Your task to perform on an android device: Clear all items from cart on newegg. Add "lenovo thinkpad" to the cart on newegg, then select checkout. Image 0: 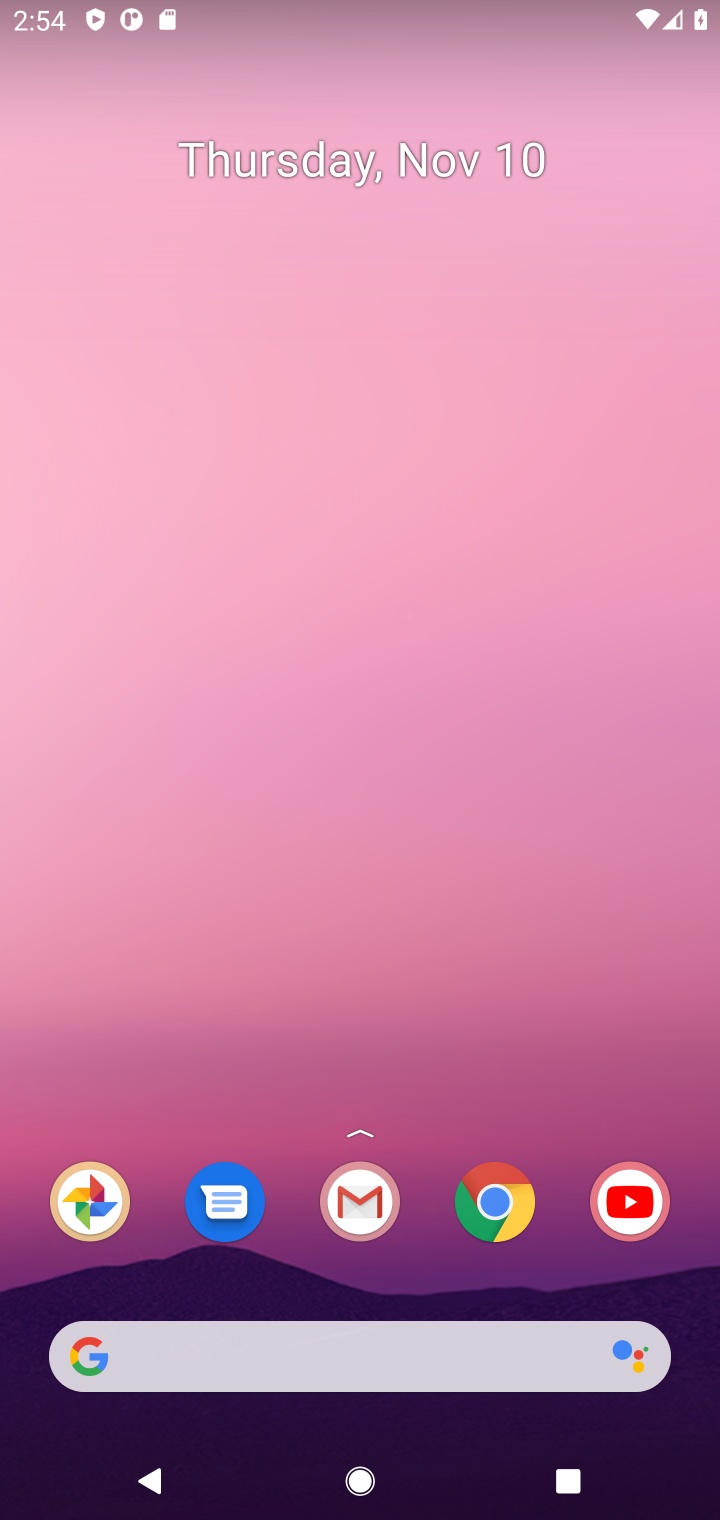
Step 0: click (498, 1199)
Your task to perform on an android device: Clear all items from cart on newegg. Add "lenovo thinkpad" to the cart on newegg, then select checkout. Image 1: 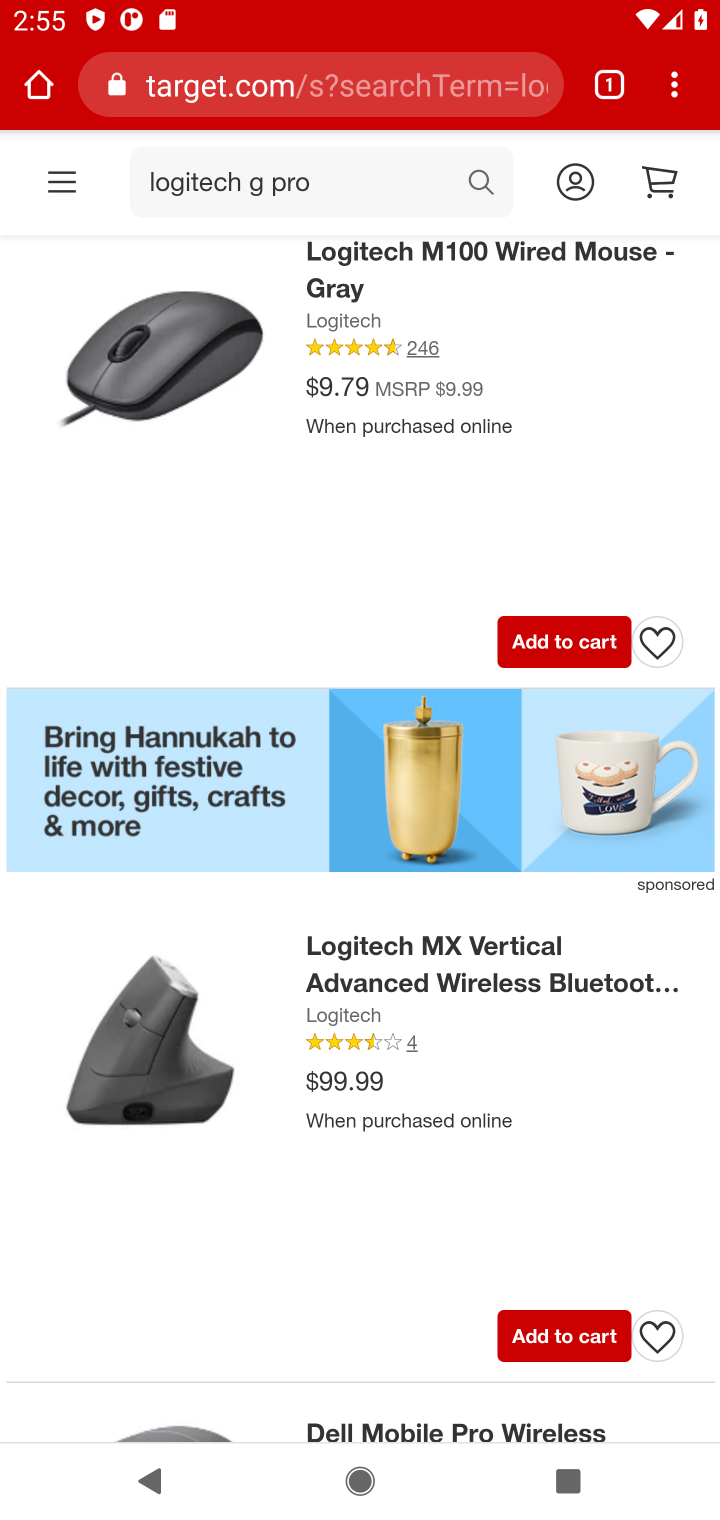
Step 1: click (321, 71)
Your task to perform on an android device: Clear all items from cart on newegg. Add "lenovo thinkpad" to the cart on newegg, then select checkout. Image 2: 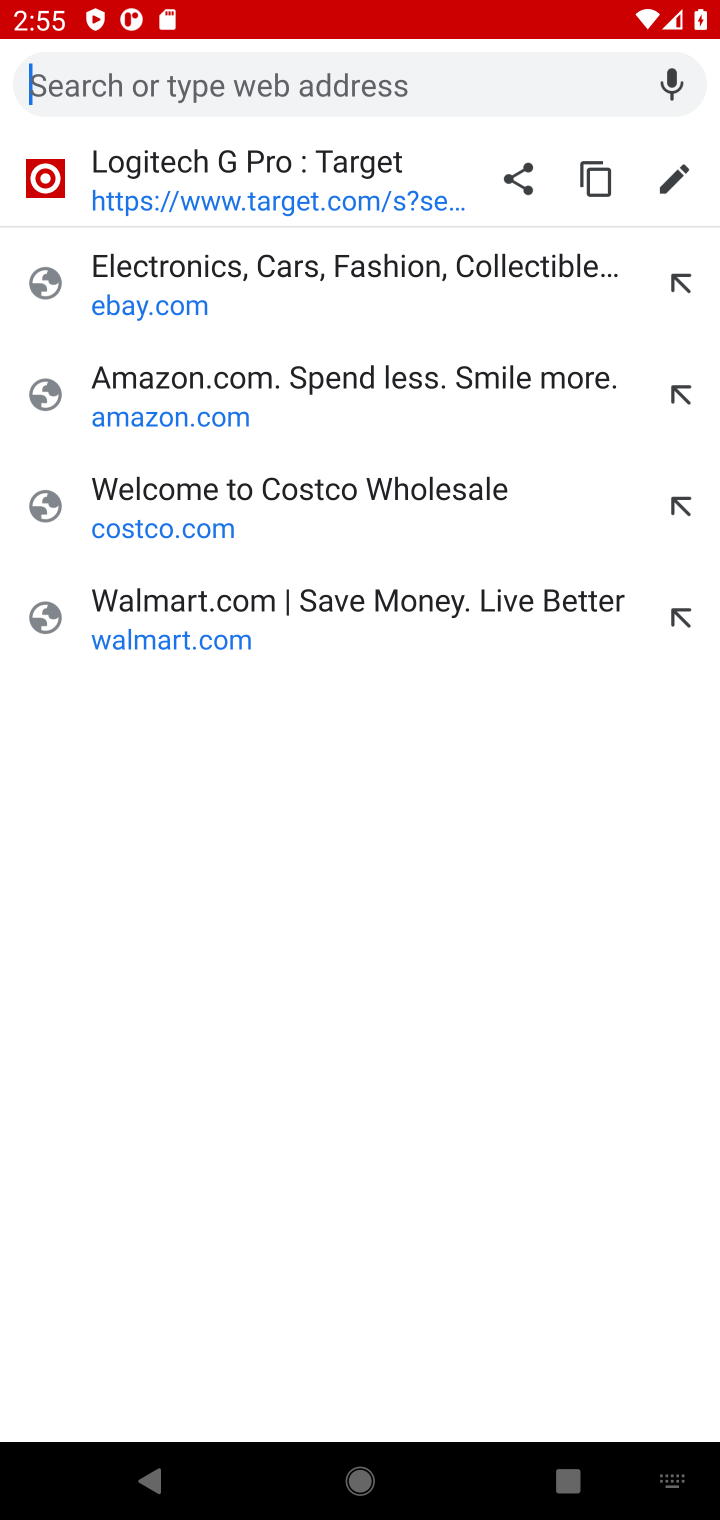
Step 2: type "newegg"
Your task to perform on an android device: Clear all items from cart on newegg. Add "lenovo thinkpad" to the cart on newegg, then select checkout. Image 3: 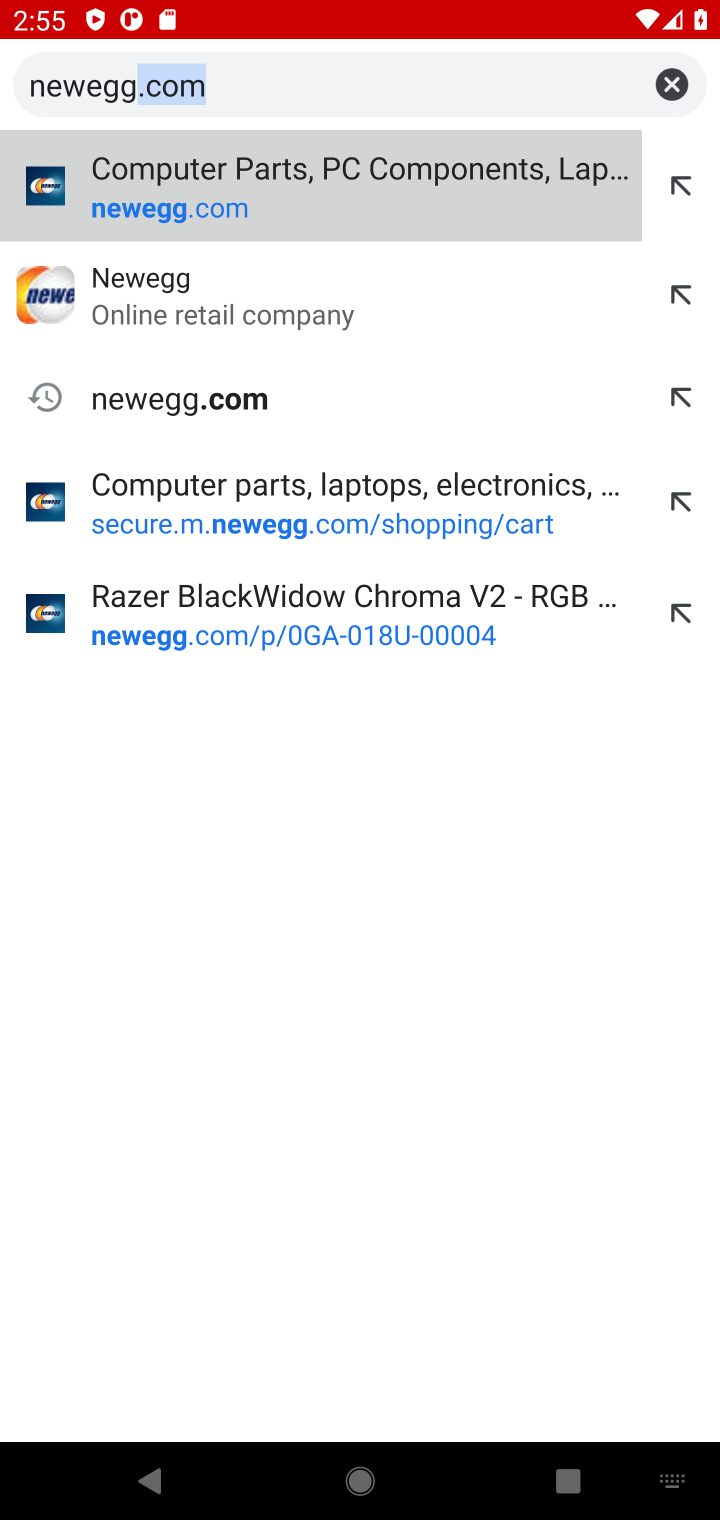
Step 3: click (369, 83)
Your task to perform on an android device: Clear all items from cart on newegg. Add "lenovo thinkpad" to the cart on newegg, then select checkout. Image 4: 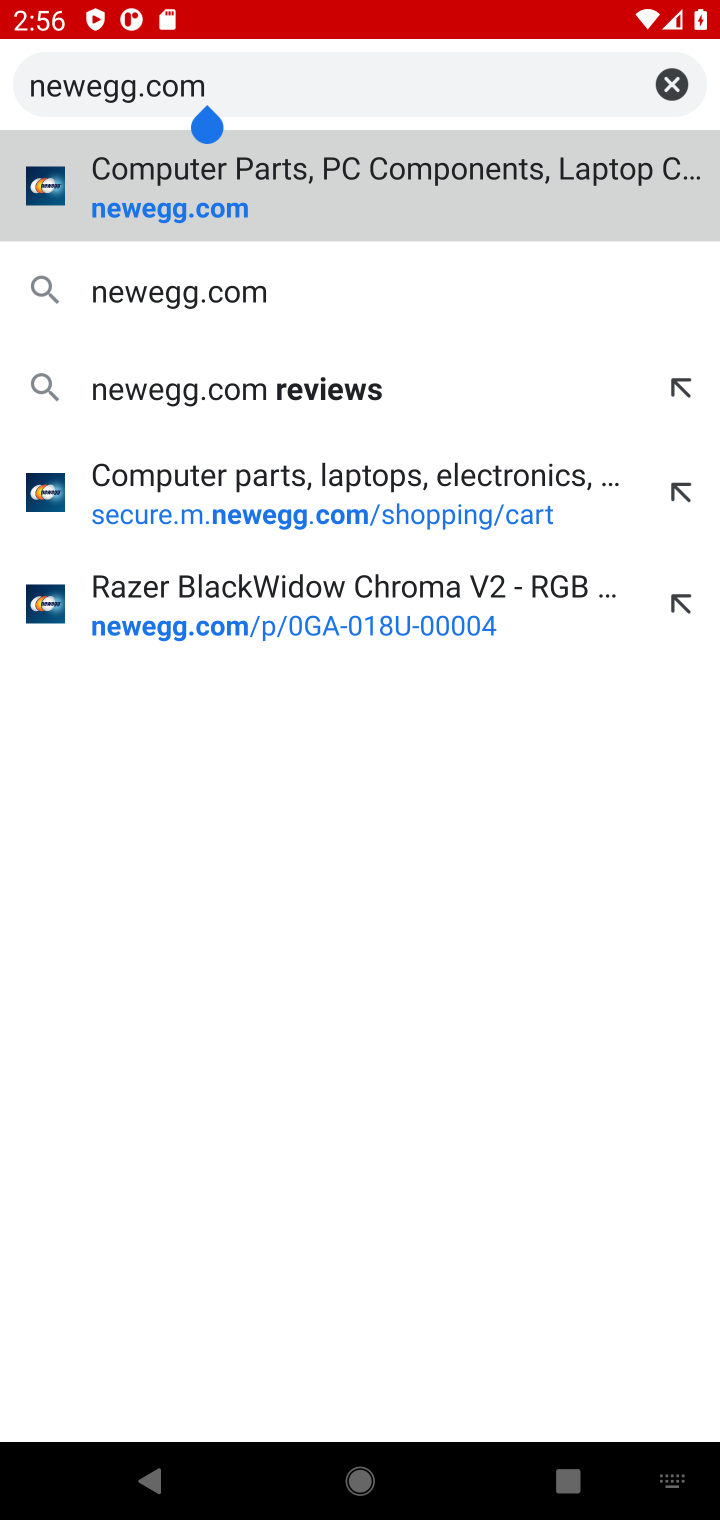
Step 4: click (204, 295)
Your task to perform on an android device: Clear all items from cart on newegg. Add "lenovo thinkpad" to the cart on newegg, then select checkout. Image 5: 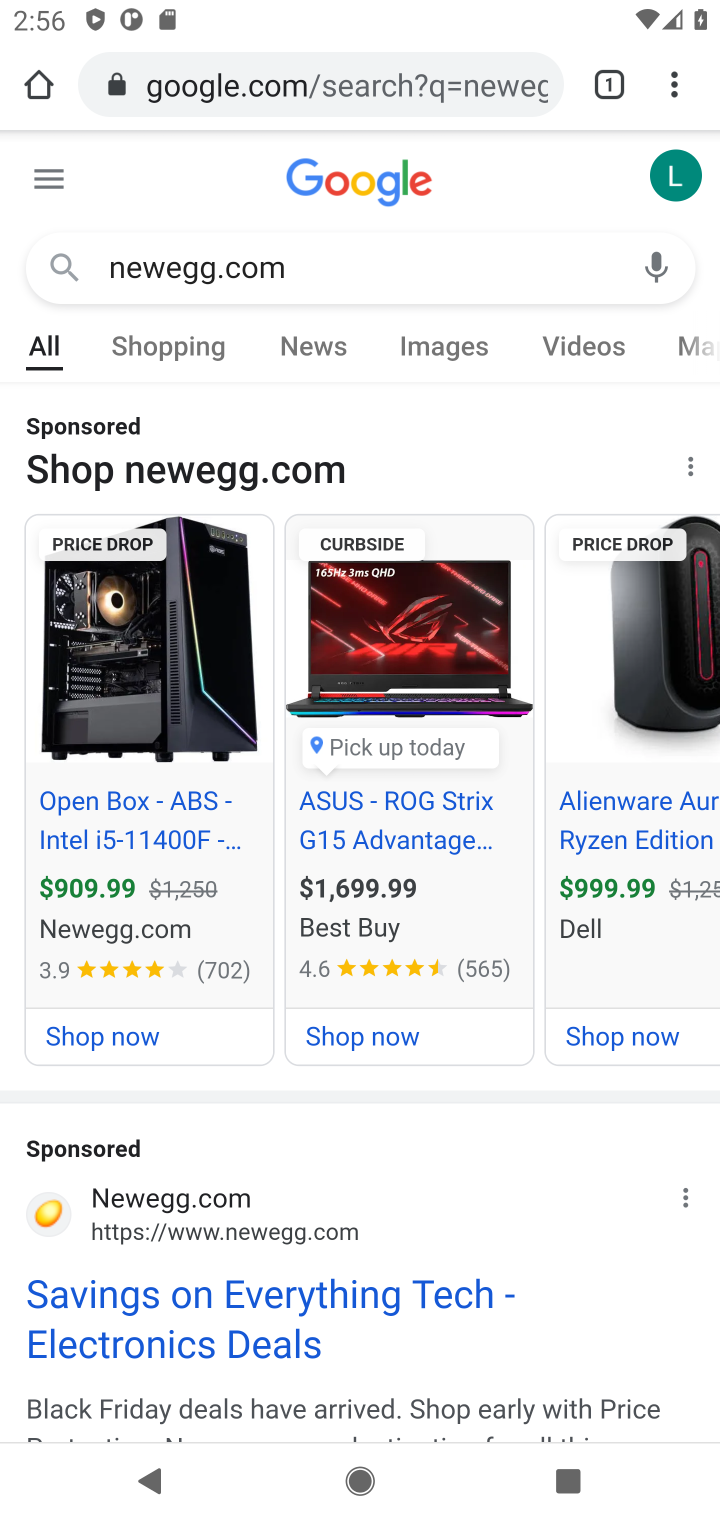
Step 5: click (231, 1223)
Your task to perform on an android device: Clear all items from cart on newegg. Add "lenovo thinkpad" to the cart on newegg, then select checkout. Image 6: 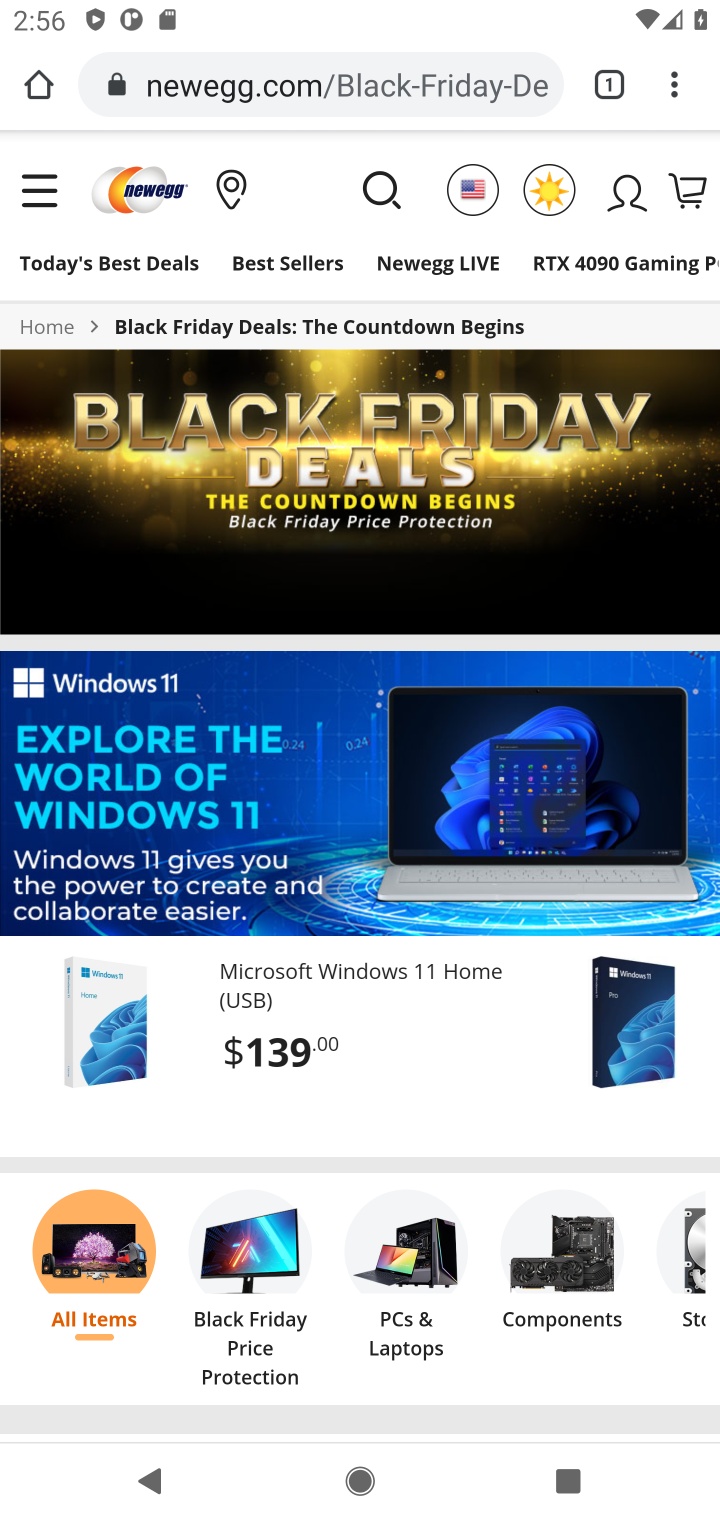
Step 6: click (382, 178)
Your task to perform on an android device: Clear all items from cart on newegg. Add "lenovo thinkpad" to the cart on newegg, then select checkout. Image 7: 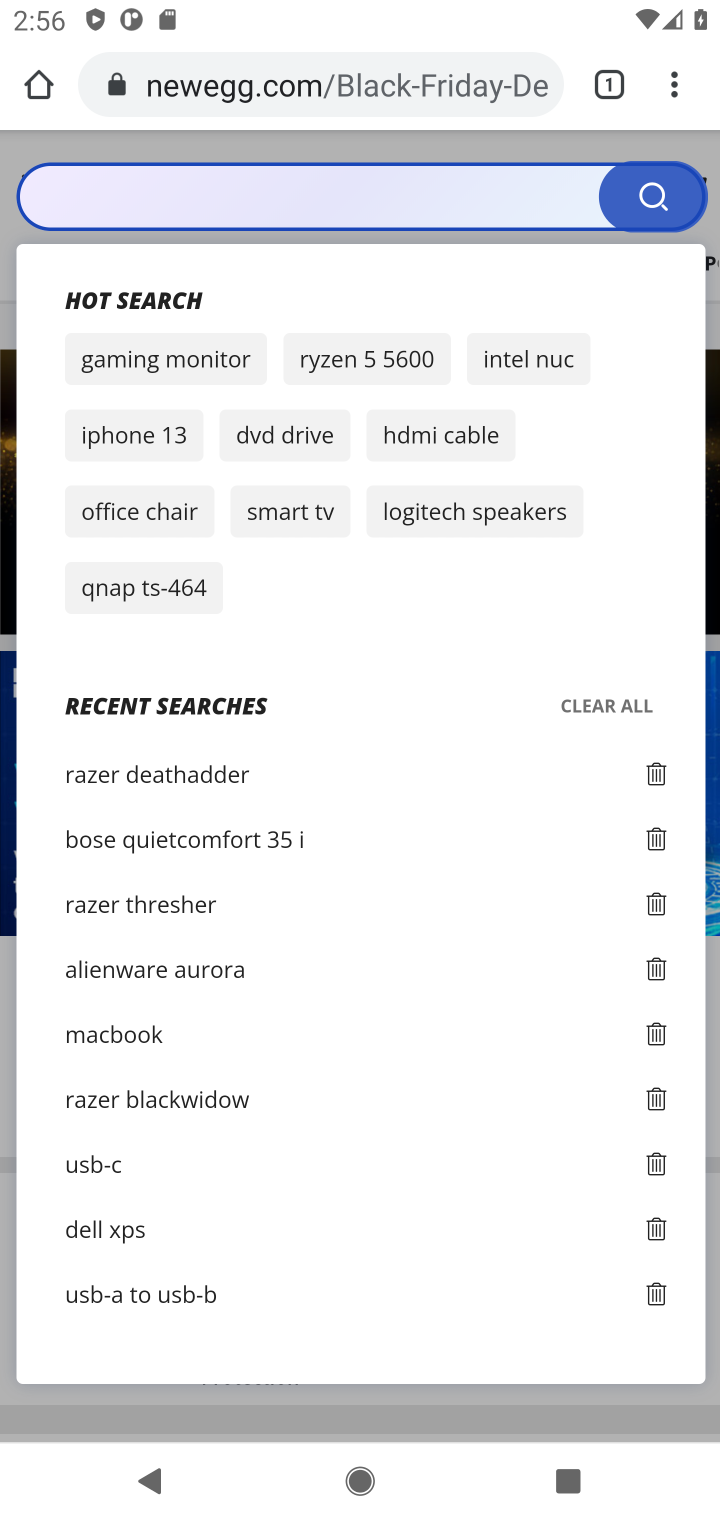
Step 7: press enter
Your task to perform on an android device: Clear all items from cart on newegg. Add "lenovo thinkpad" to the cart on newegg, then select checkout. Image 8: 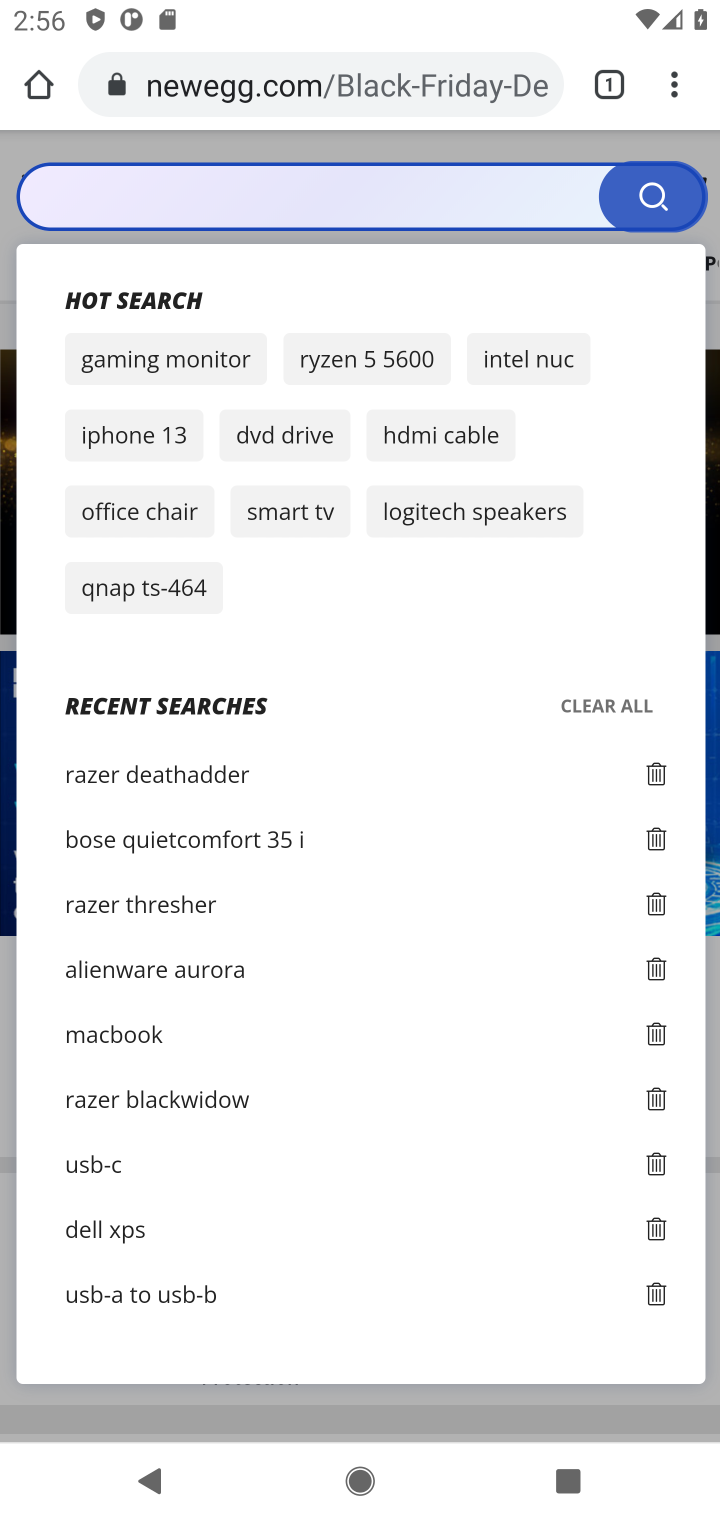
Step 8: type "lenovo thinkpad"
Your task to perform on an android device: Clear all items from cart on newegg. Add "lenovo thinkpad" to the cart on newegg, then select checkout. Image 9: 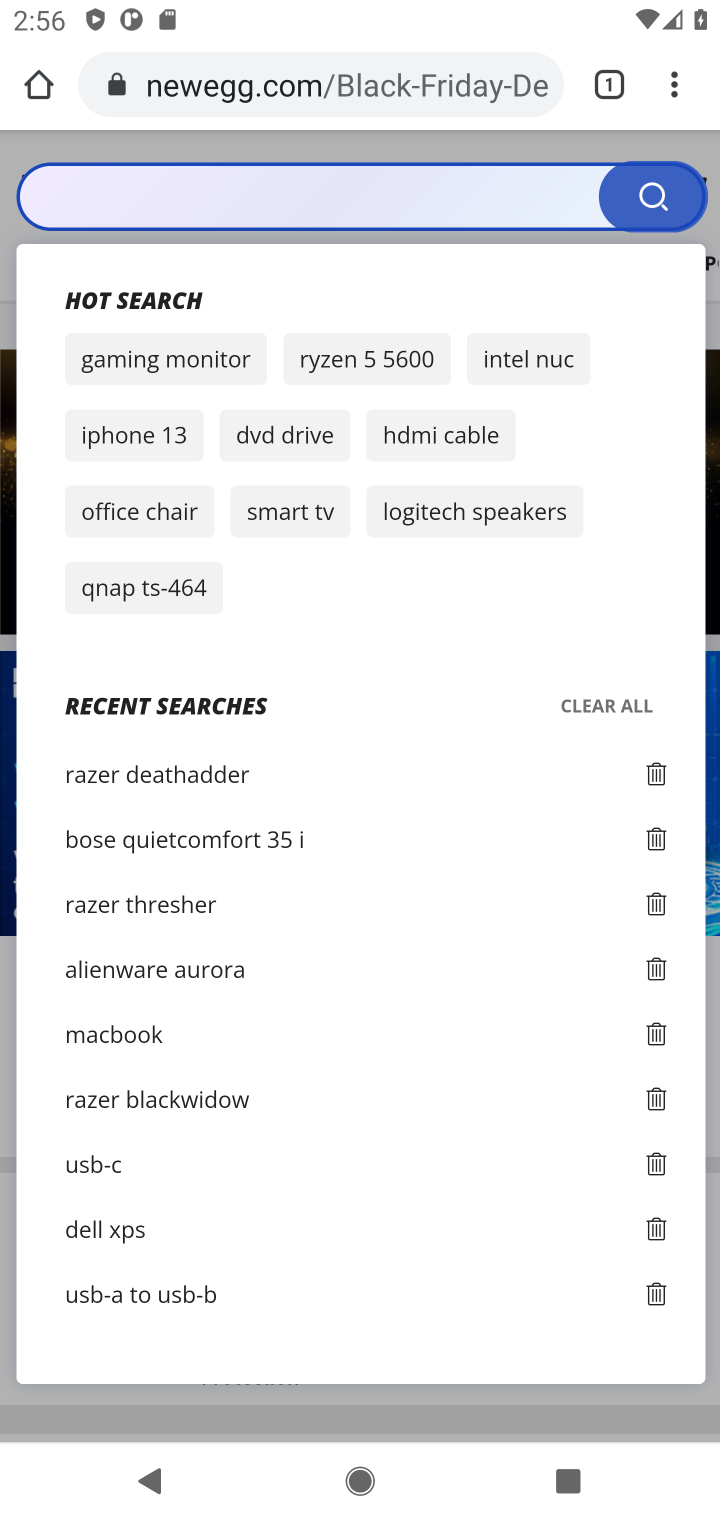
Step 9: click (280, 188)
Your task to perform on an android device: Clear all items from cart on newegg. Add "lenovo thinkpad" to the cart on newegg, then select checkout. Image 10: 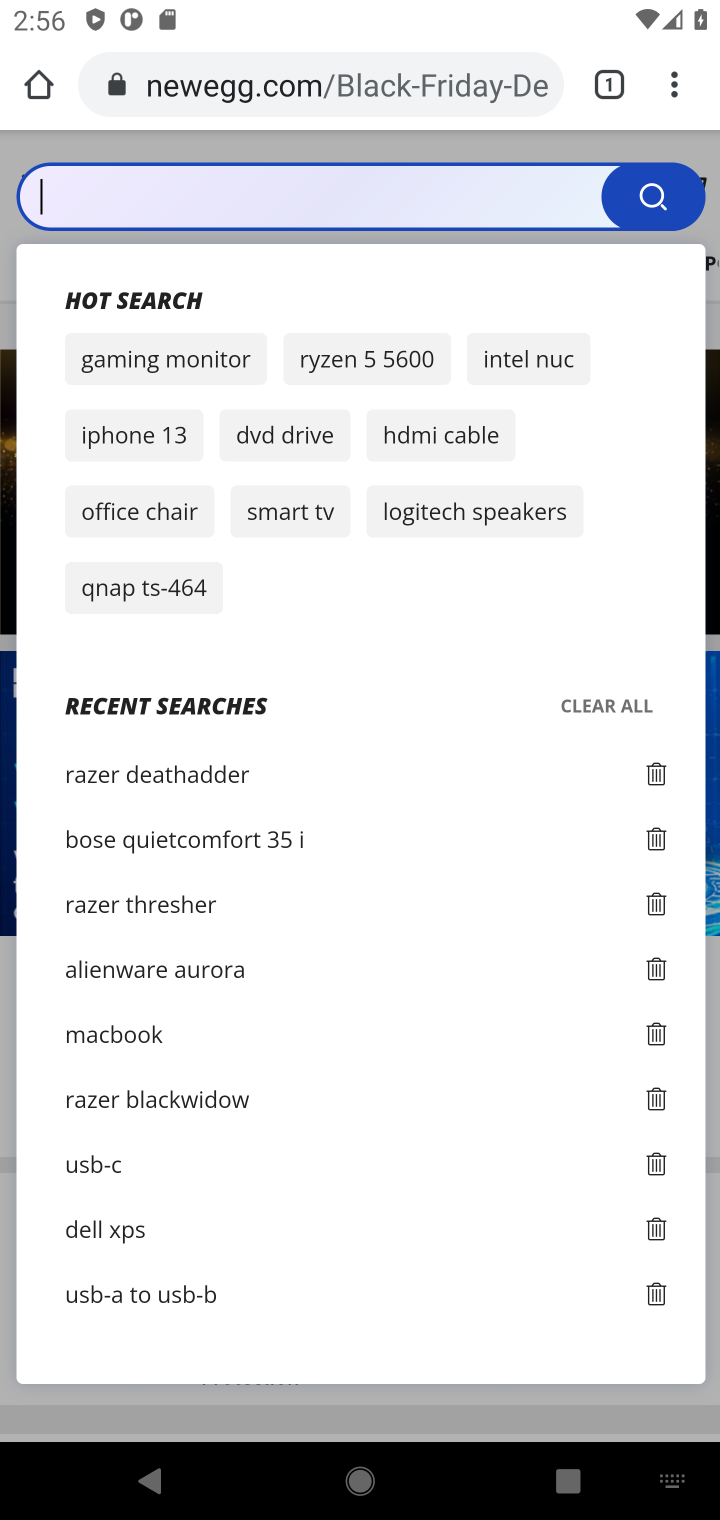
Step 10: press enter
Your task to perform on an android device: Clear all items from cart on newegg. Add "lenovo thinkpad" to the cart on newegg, then select checkout. Image 11: 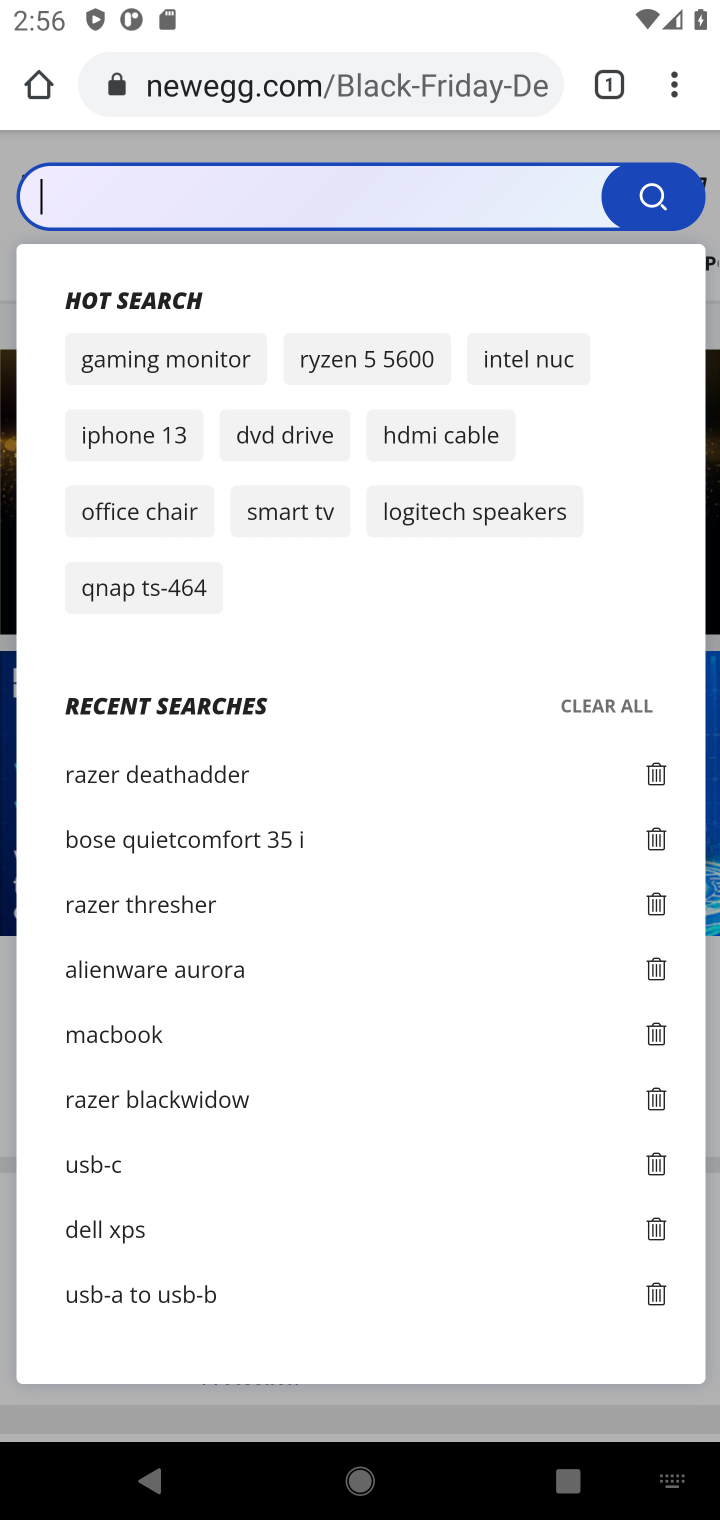
Step 11: type "lenovo thinkpad"
Your task to perform on an android device: Clear all items from cart on newegg. Add "lenovo thinkpad" to the cart on newegg, then select checkout. Image 12: 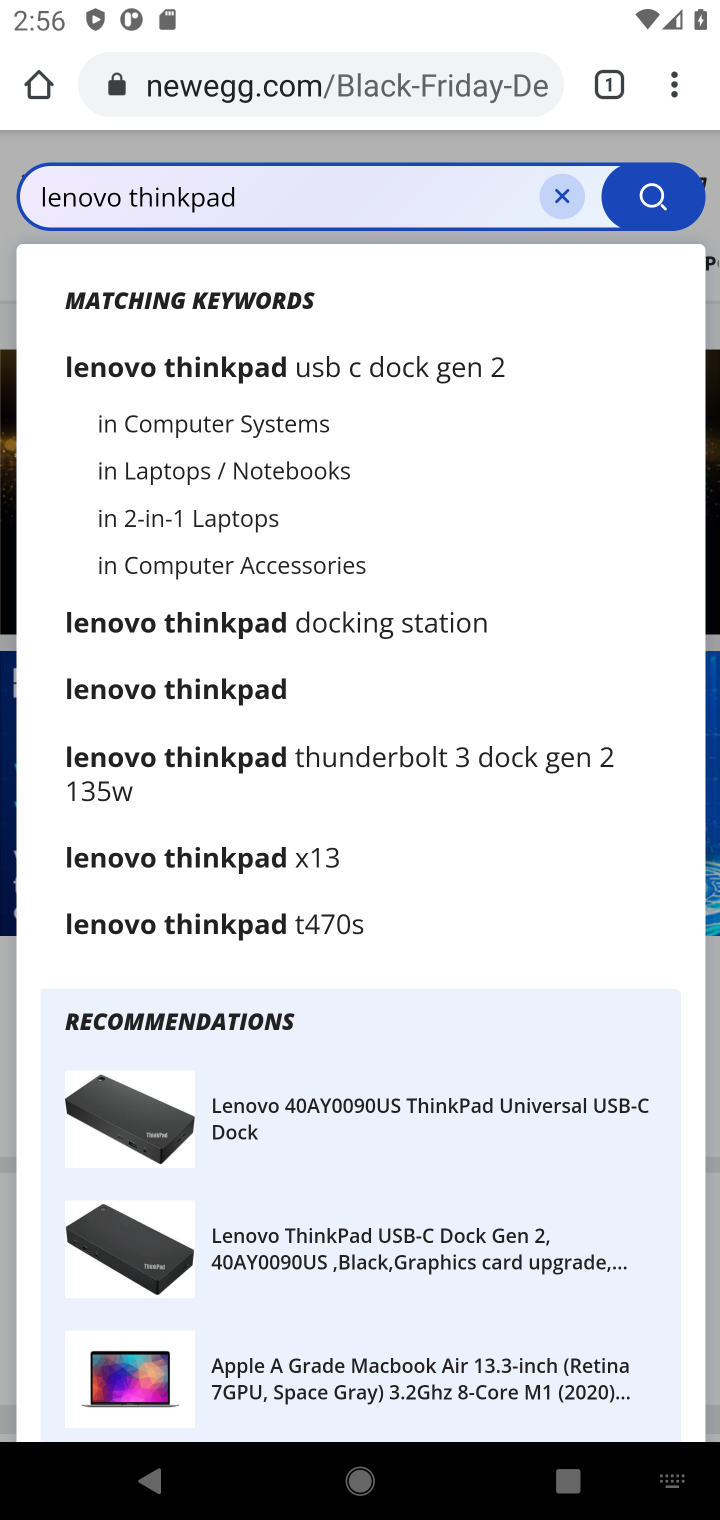
Step 12: click (232, 687)
Your task to perform on an android device: Clear all items from cart on newegg. Add "lenovo thinkpad" to the cart on newegg, then select checkout. Image 13: 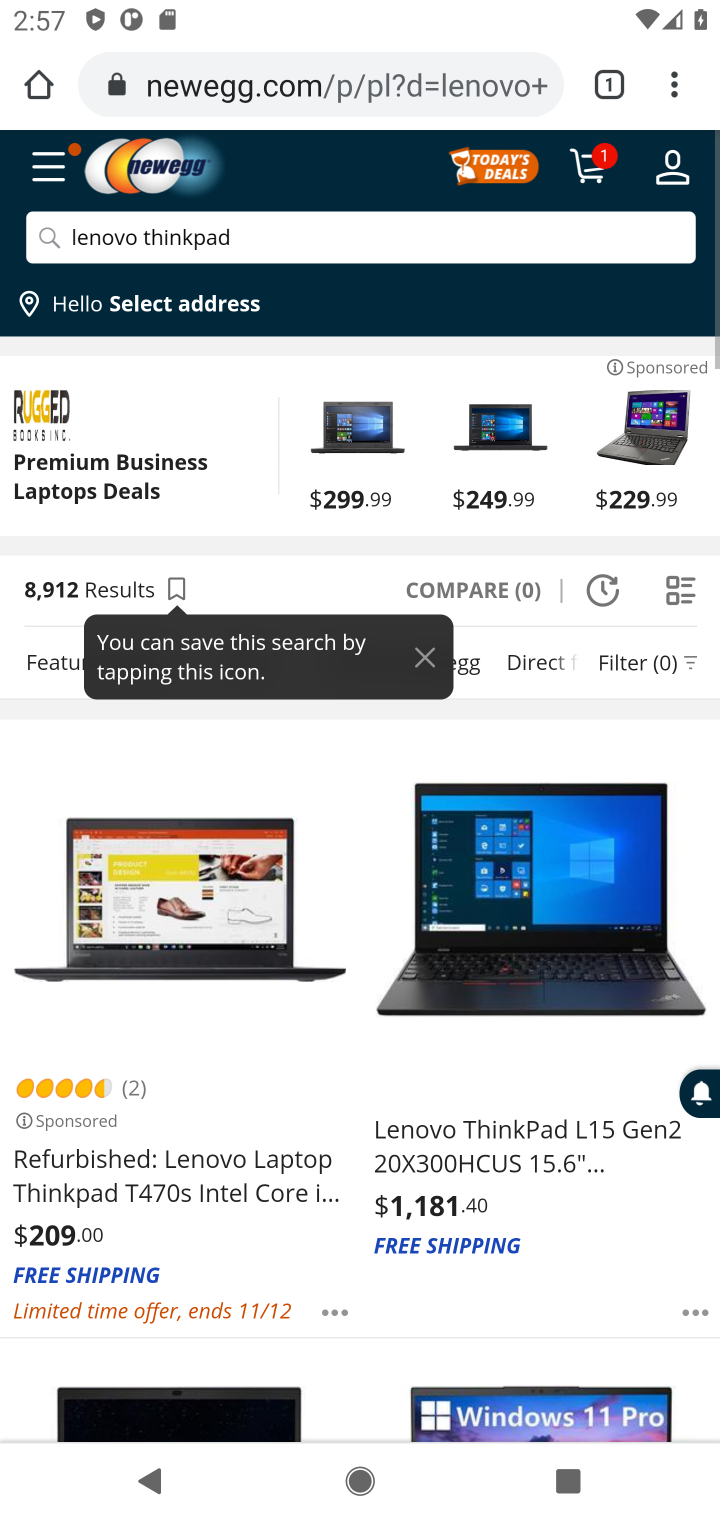
Step 13: drag from (361, 771) to (500, 1193)
Your task to perform on an android device: Clear all items from cart on newegg. Add "lenovo thinkpad" to the cart on newegg, then select checkout. Image 14: 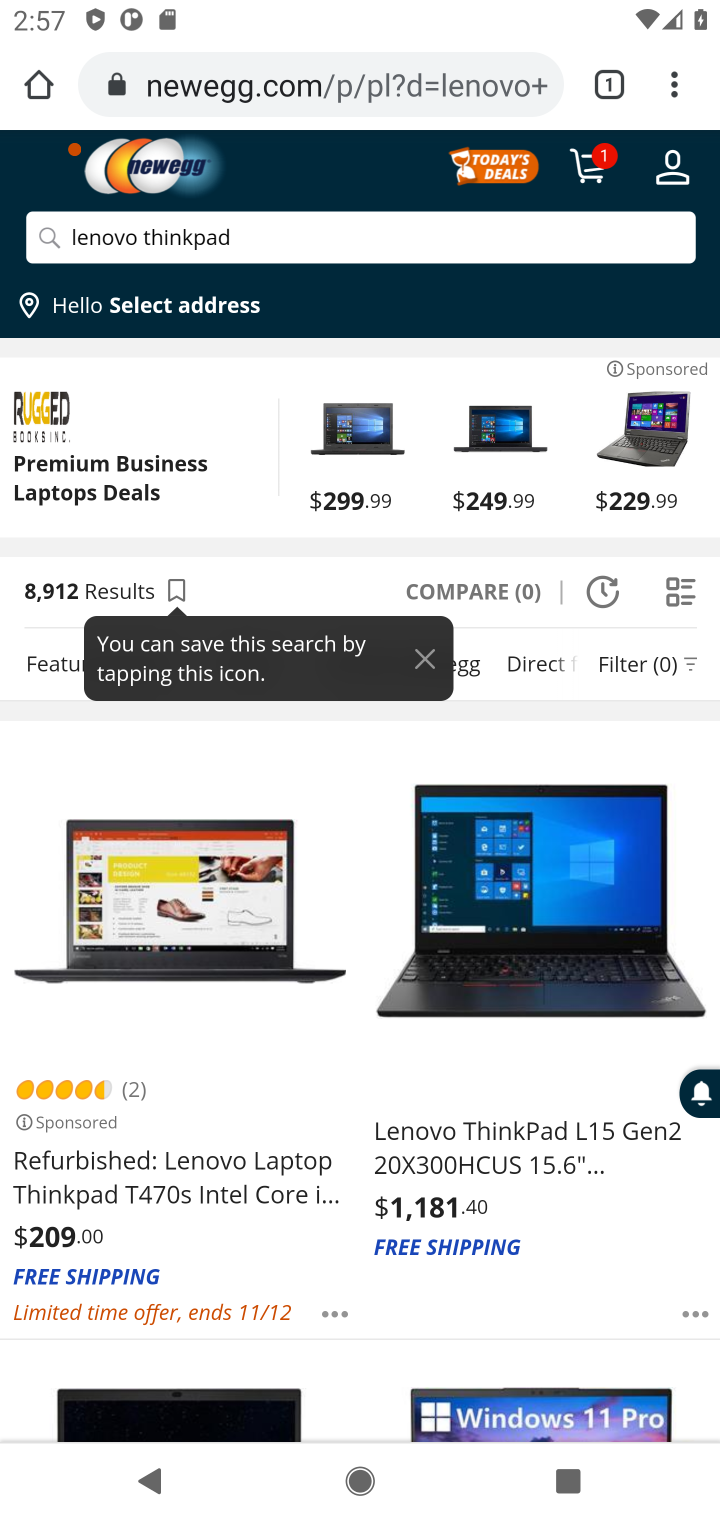
Step 14: click (542, 858)
Your task to perform on an android device: Clear all items from cart on newegg. Add "lenovo thinkpad" to the cart on newegg, then select checkout. Image 15: 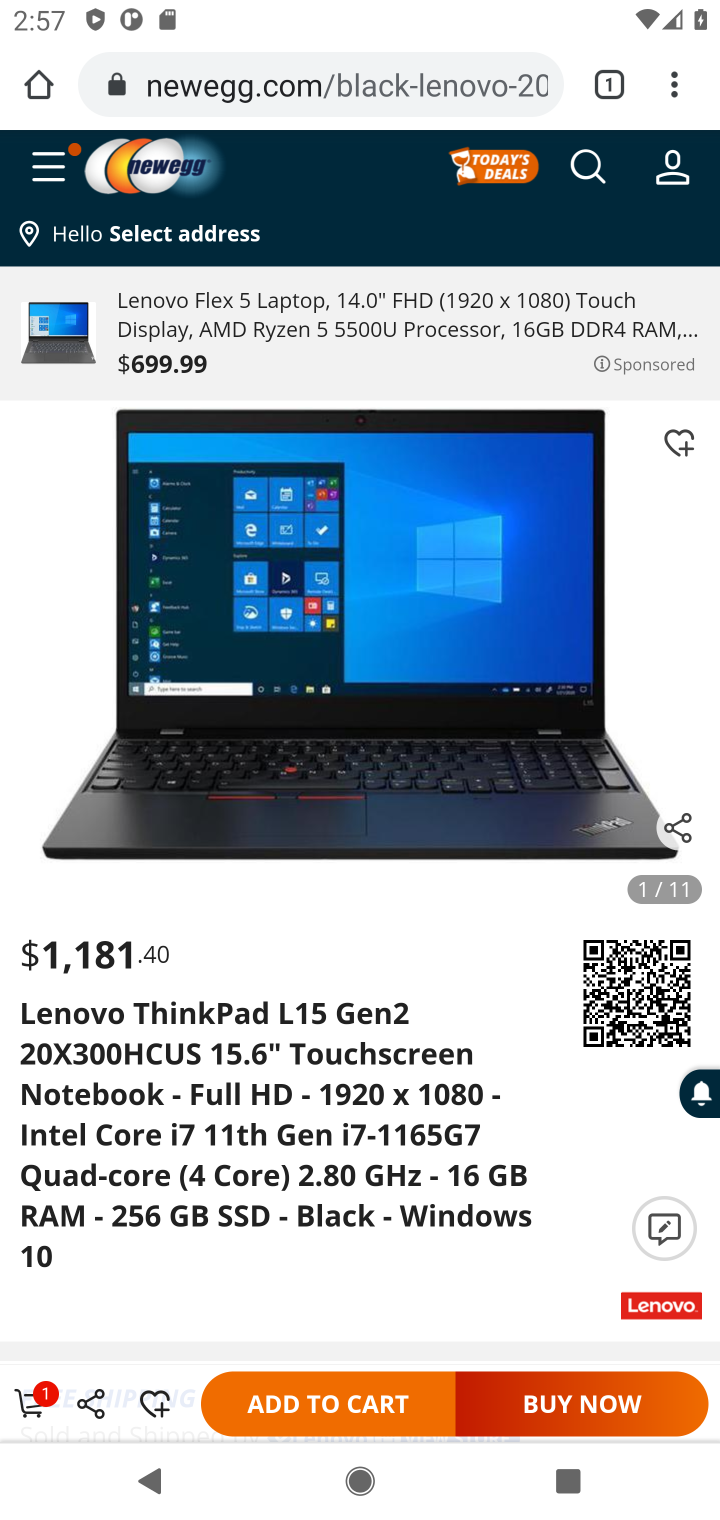
Step 15: click (344, 1398)
Your task to perform on an android device: Clear all items from cart on newegg. Add "lenovo thinkpad" to the cart on newegg, then select checkout. Image 16: 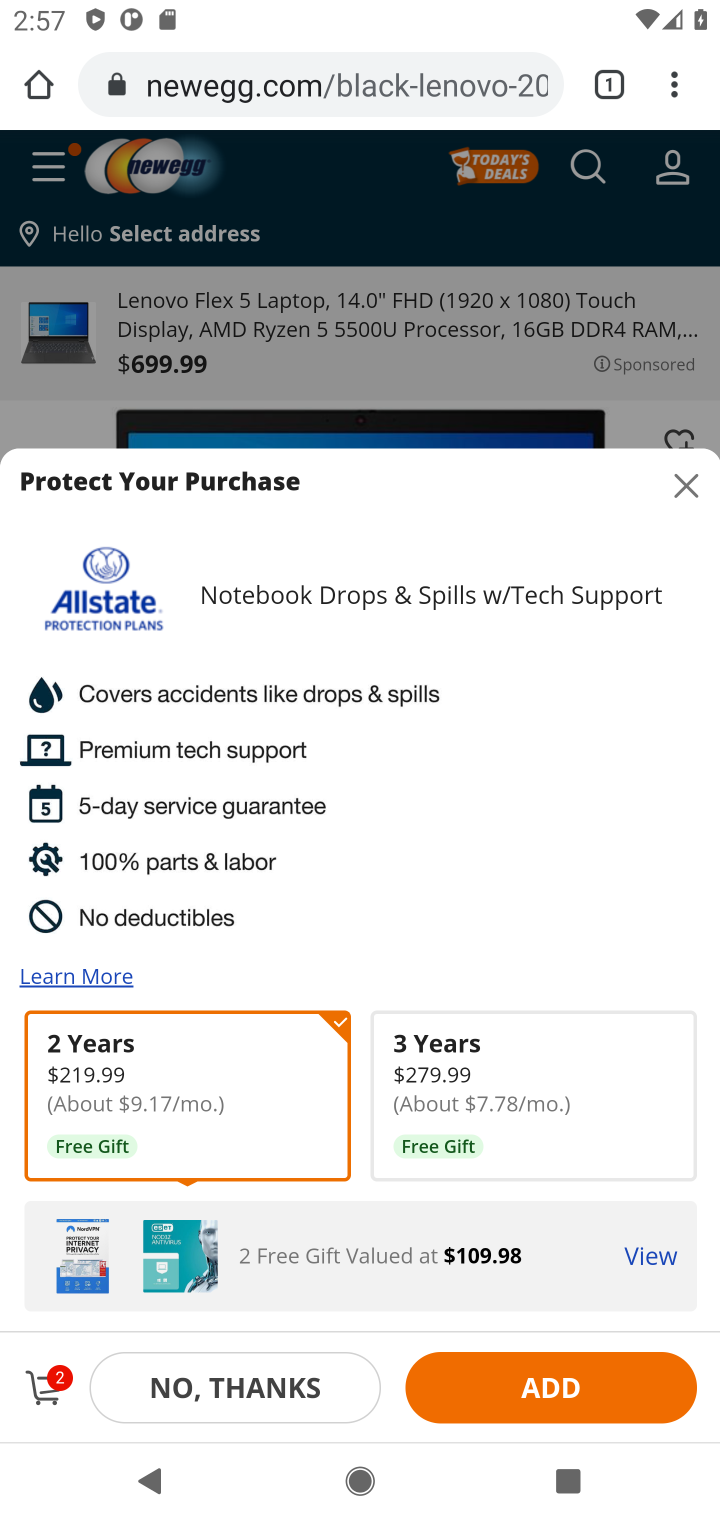
Step 16: click (689, 484)
Your task to perform on an android device: Clear all items from cart on newegg. Add "lenovo thinkpad" to the cart on newegg, then select checkout. Image 17: 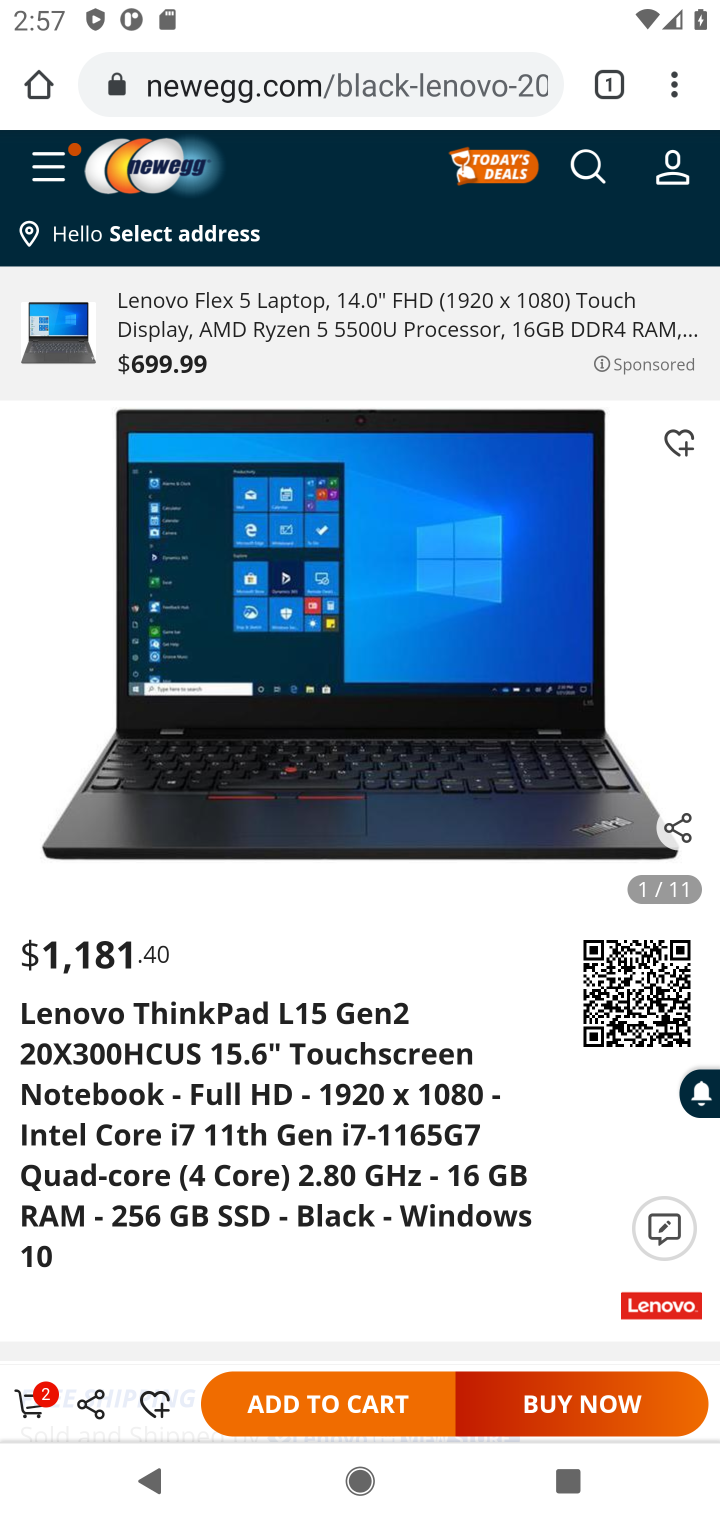
Step 17: click (16, 1407)
Your task to perform on an android device: Clear all items from cart on newegg. Add "lenovo thinkpad" to the cart on newegg, then select checkout. Image 18: 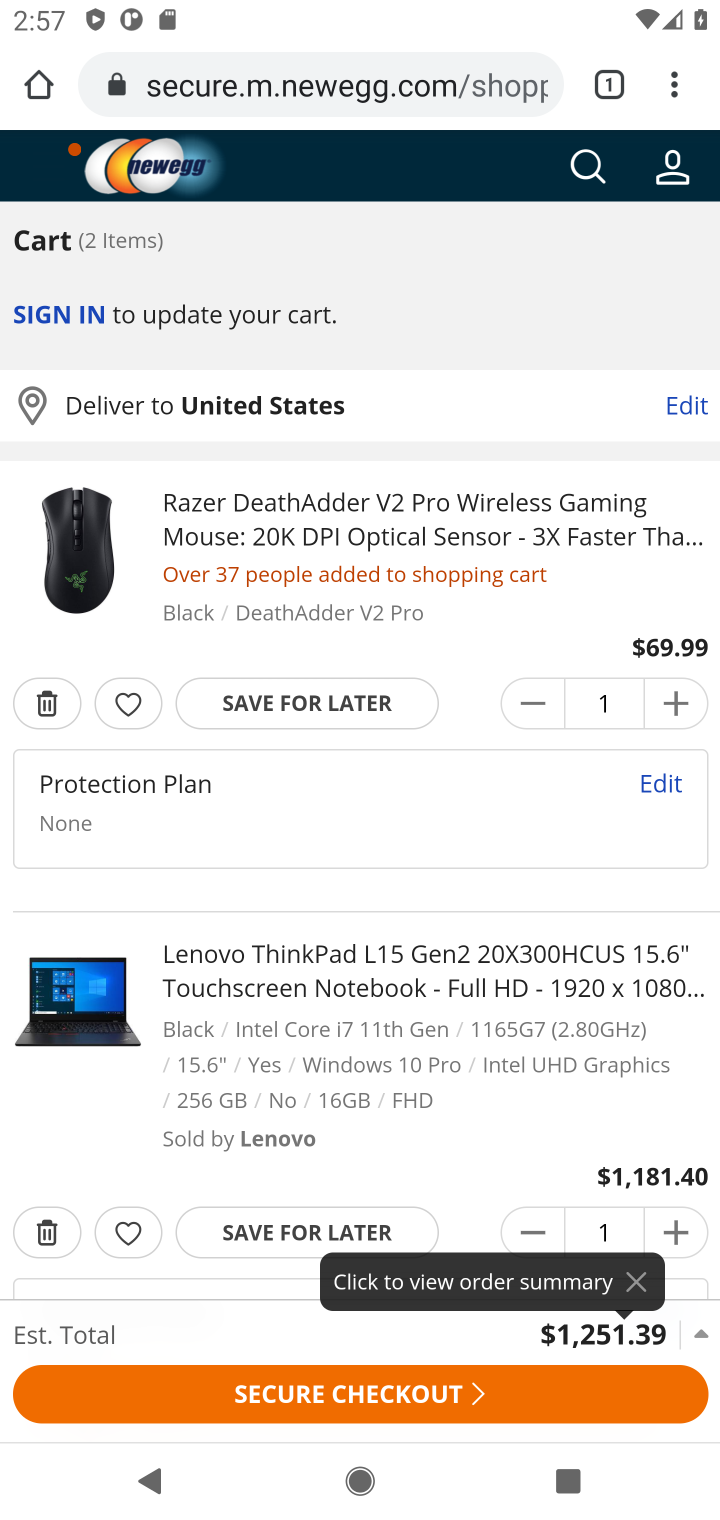
Step 18: click (293, 1389)
Your task to perform on an android device: Clear all items from cart on newegg. Add "lenovo thinkpad" to the cart on newegg, then select checkout. Image 19: 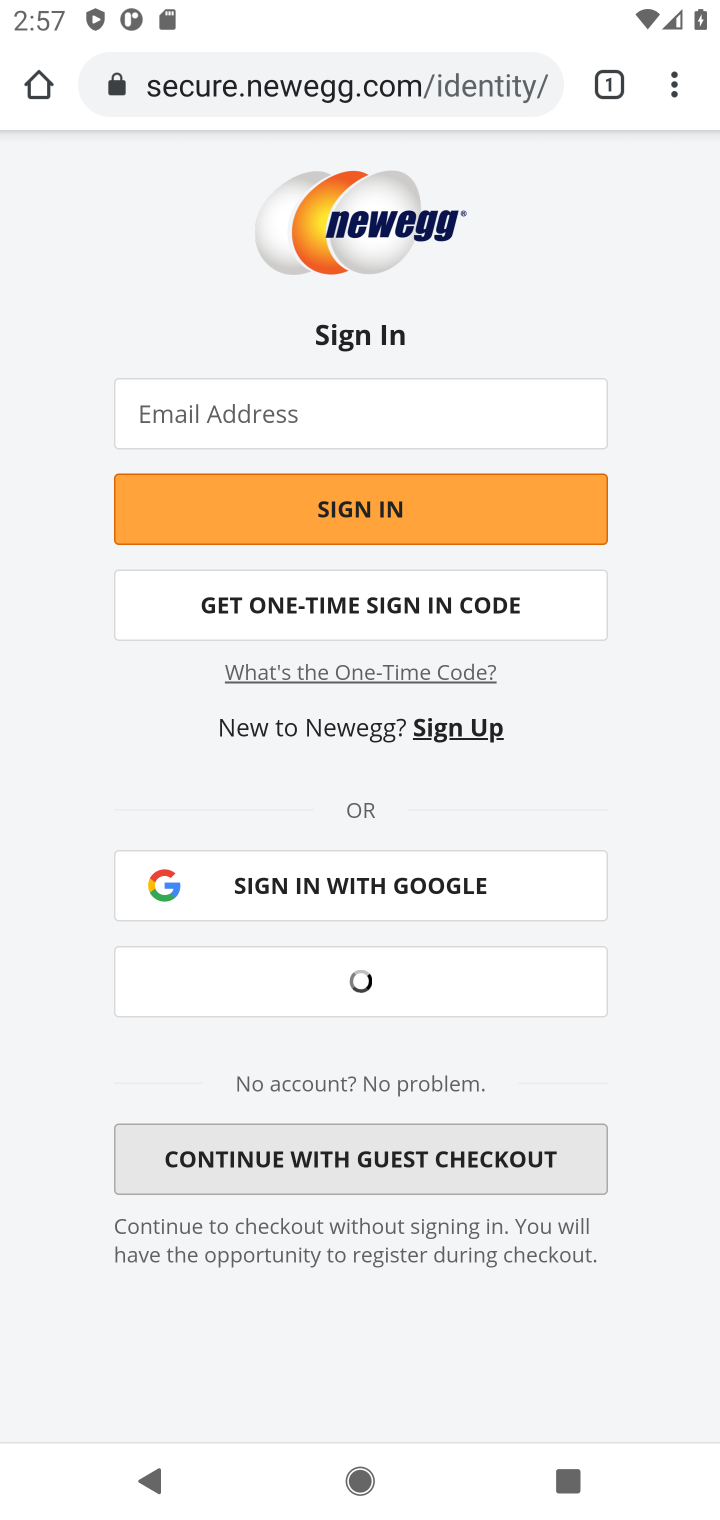
Step 19: task complete